Your task to perform on an android device: Show me popular games on the Play Store Image 0: 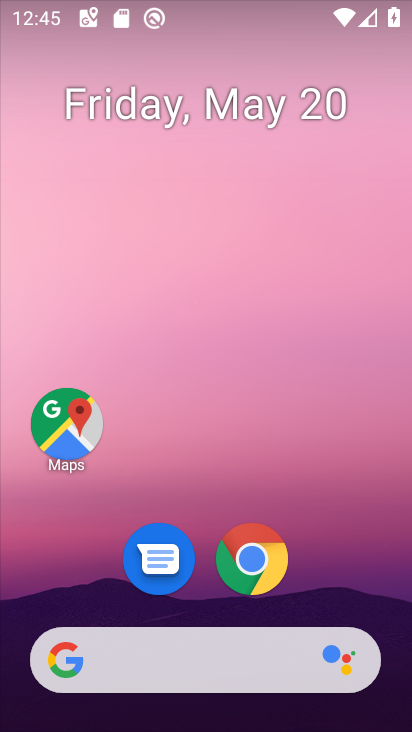
Step 0: drag from (341, 591) to (334, 112)
Your task to perform on an android device: Show me popular games on the Play Store Image 1: 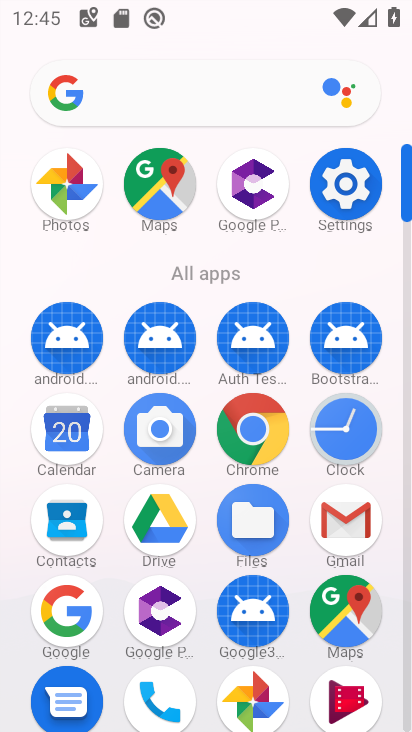
Step 1: drag from (216, 700) to (257, 344)
Your task to perform on an android device: Show me popular games on the Play Store Image 2: 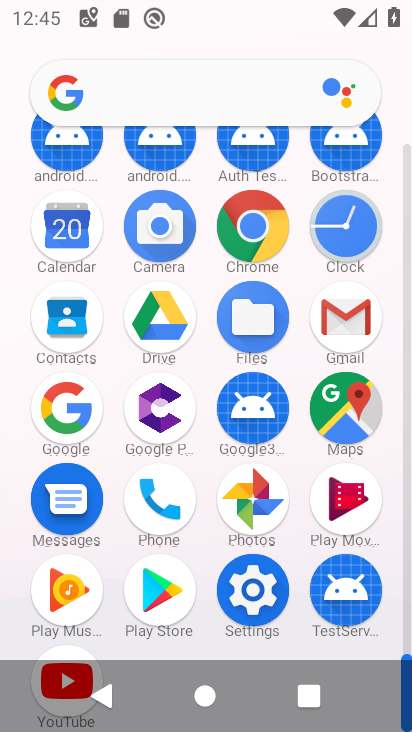
Step 2: click (174, 578)
Your task to perform on an android device: Show me popular games on the Play Store Image 3: 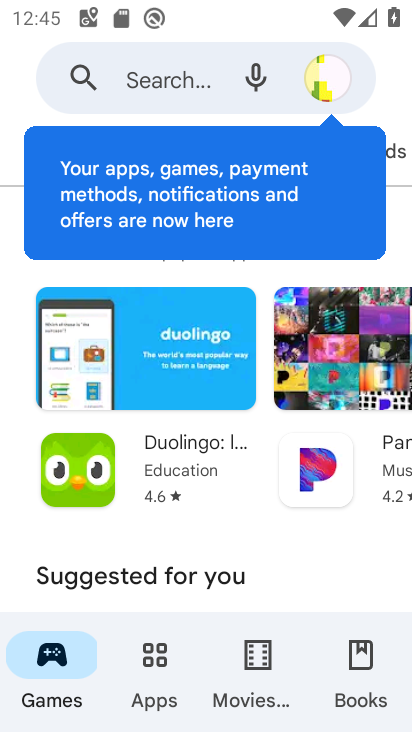
Step 3: drag from (137, 549) to (182, 229)
Your task to perform on an android device: Show me popular games on the Play Store Image 4: 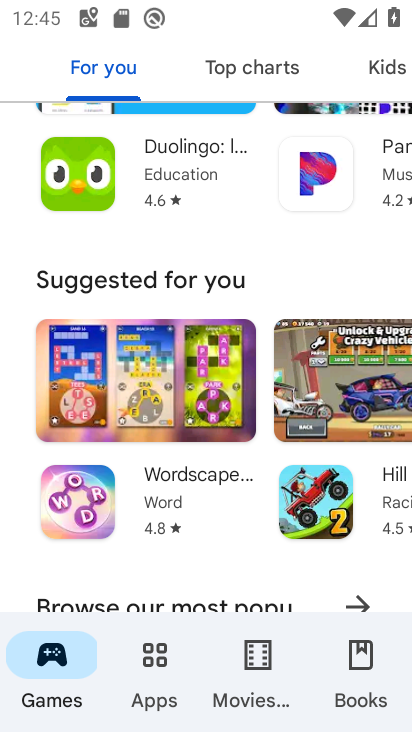
Step 4: drag from (214, 499) to (224, 289)
Your task to perform on an android device: Show me popular games on the Play Store Image 5: 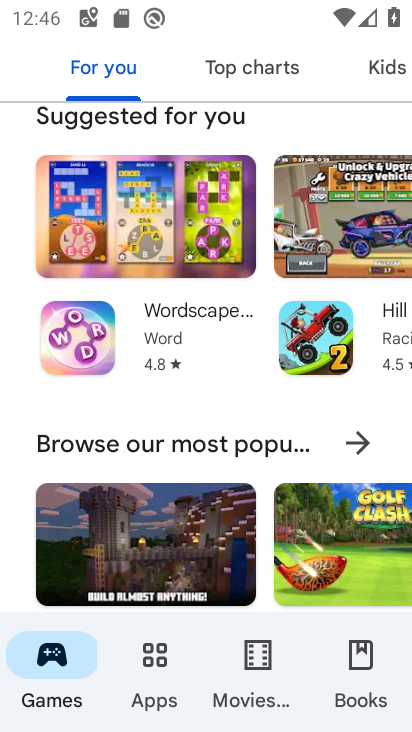
Step 5: click (256, 459)
Your task to perform on an android device: Show me popular games on the Play Store Image 6: 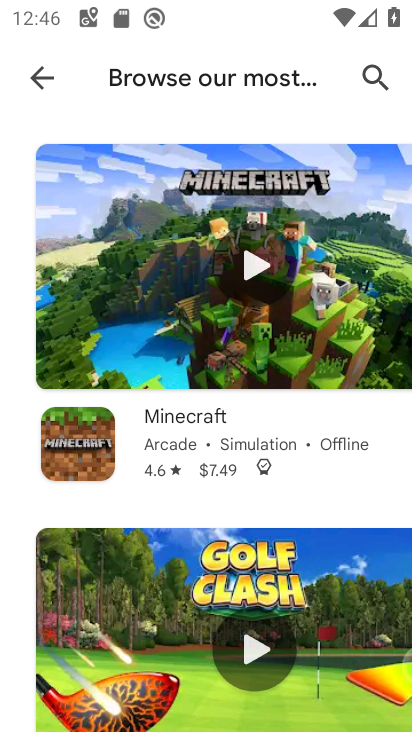
Step 6: task complete